Your task to perform on an android device: Open Youtube and go to the subscriptions tab Image 0: 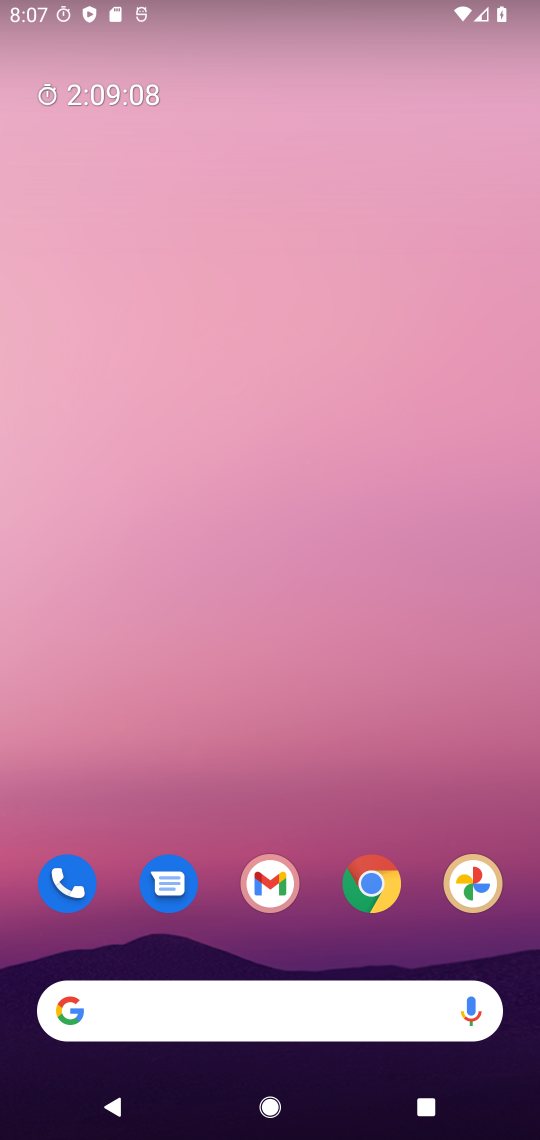
Step 0: drag from (244, 827) to (328, 202)
Your task to perform on an android device: Open Youtube and go to the subscriptions tab Image 1: 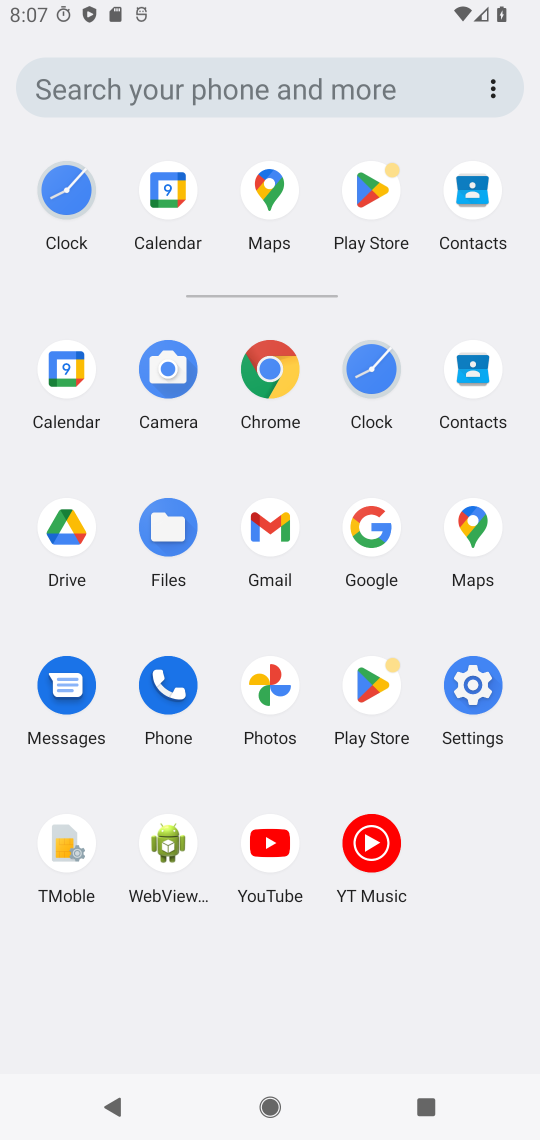
Step 1: click (285, 854)
Your task to perform on an android device: Open Youtube and go to the subscriptions tab Image 2: 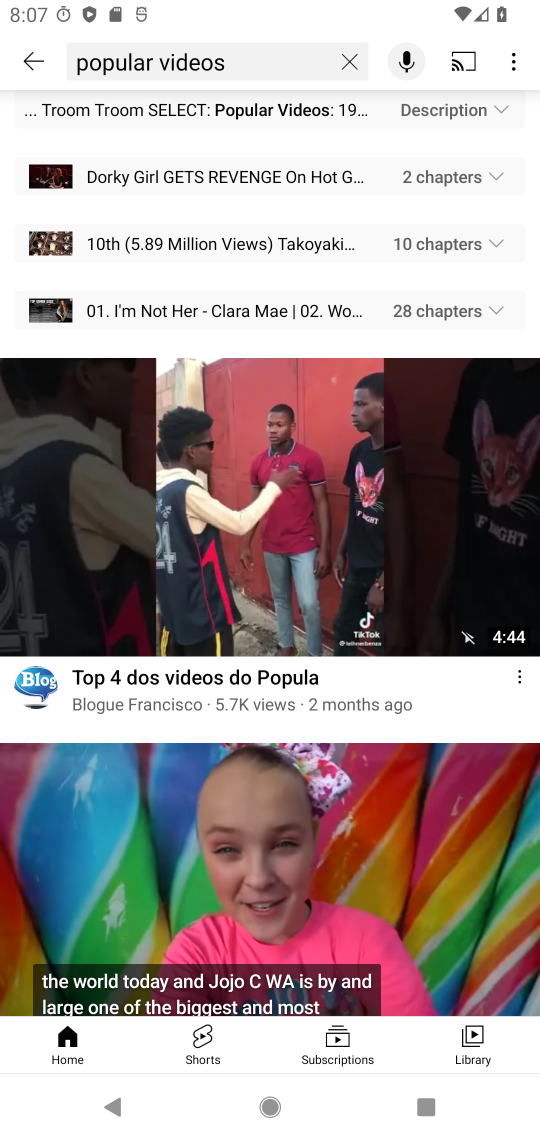
Step 2: task complete